Your task to perform on an android device: check data usage Image 0: 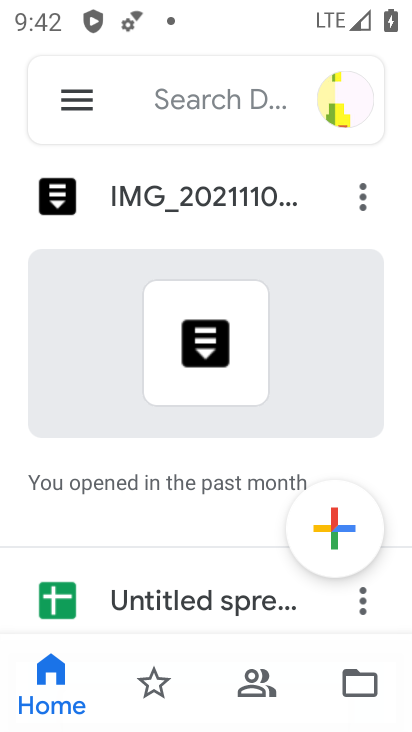
Step 0: press home button
Your task to perform on an android device: check data usage Image 1: 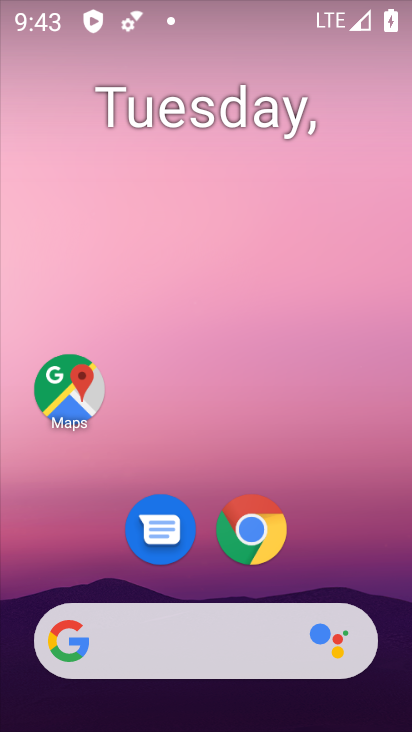
Step 1: drag from (299, 502) to (286, 104)
Your task to perform on an android device: check data usage Image 2: 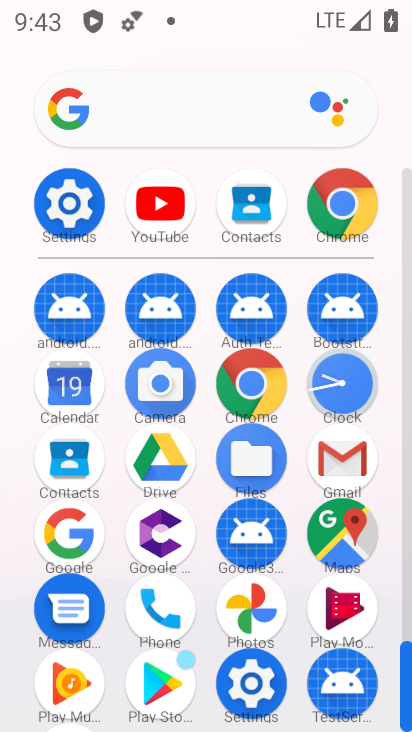
Step 2: click (247, 697)
Your task to perform on an android device: check data usage Image 3: 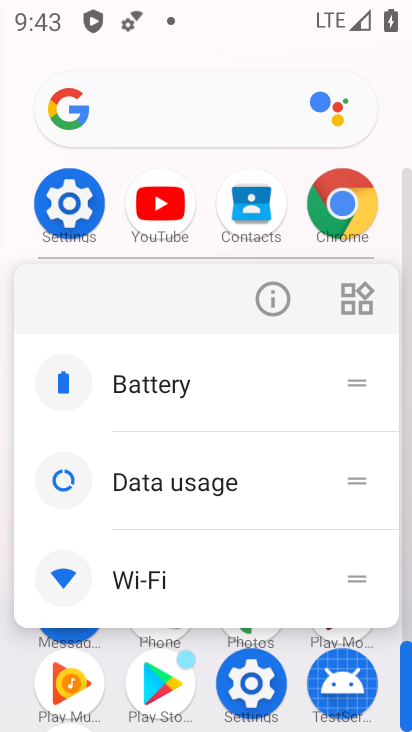
Step 3: click (271, 672)
Your task to perform on an android device: check data usage Image 4: 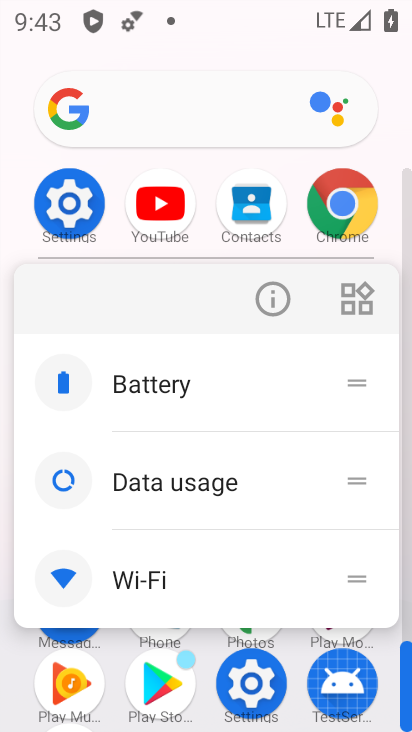
Step 4: click (264, 680)
Your task to perform on an android device: check data usage Image 5: 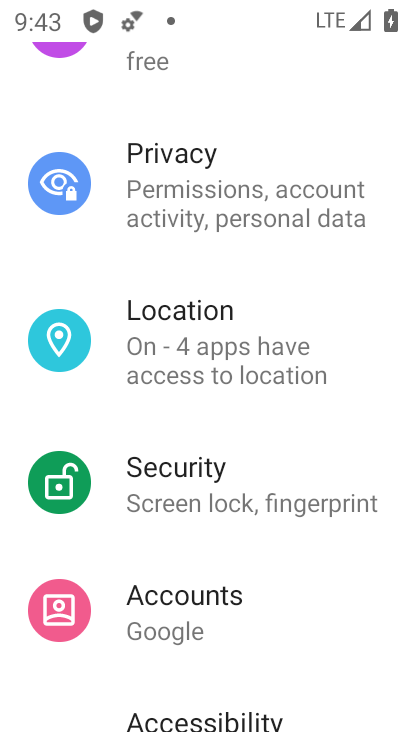
Step 5: drag from (328, 239) to (296, 667)
Your task to perform on an android device: check data usage Image 6: 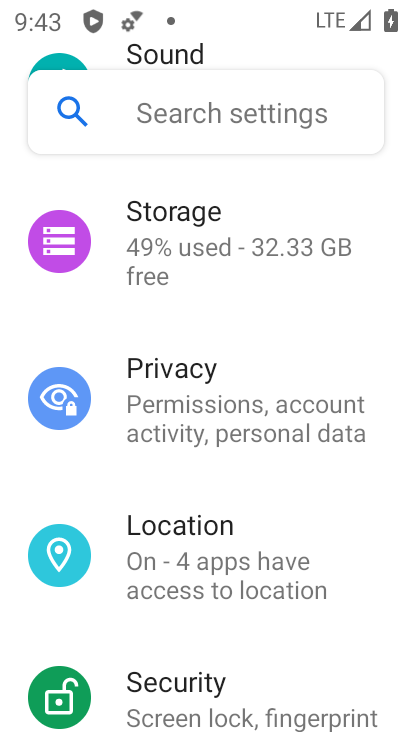
Step 6: drag from (318, 327) to (317, 728)
Your task to perform on an android device: check data usage Image 7: 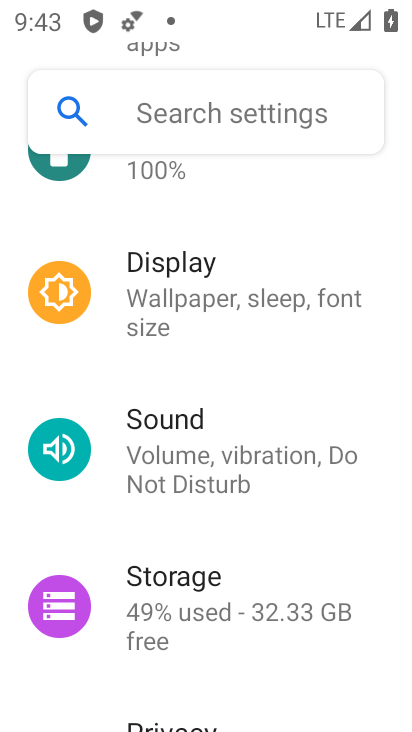
Step 7: drag from (274, 380) to (250, 731)
Your task to perform on an android device: check data usage Image 8: 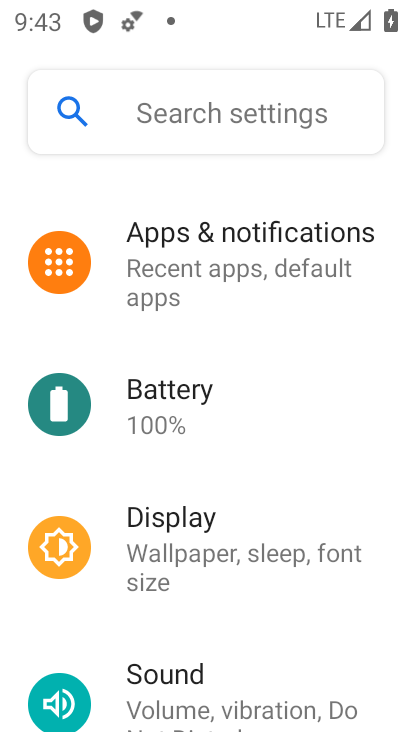
Step 8: drag from (308, 332) to (298, 718)
Your task to perform on an android device: check data usage Image 9: 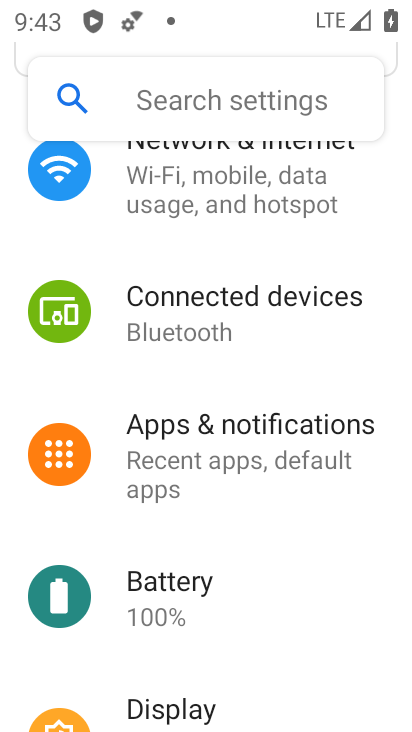
Step 9: drag from (317, 216) to (346, 560)
Your task to perform on an android device: check data usage Image 10: 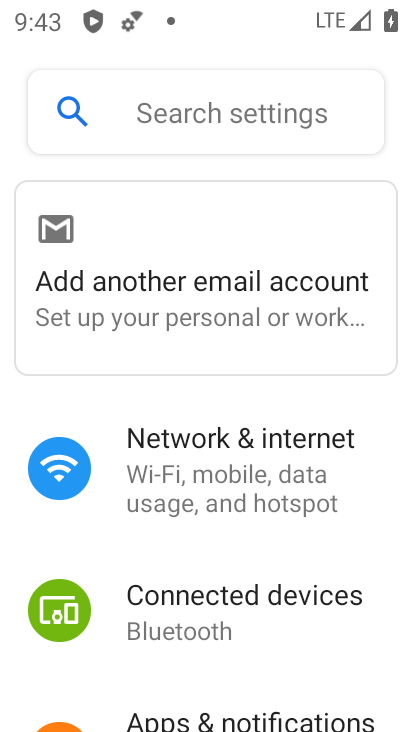
Step 10: click (319, 445)
Your task to perform on an android device: check data usage Image 11: 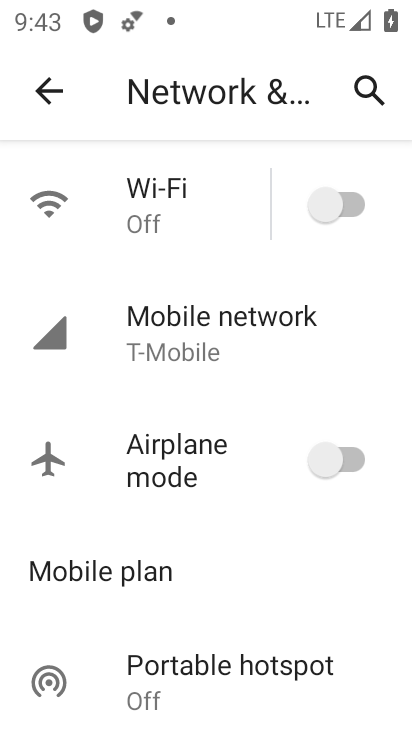
Step 11: click (311, 313)
Your task to perform on an android device: check data usage Image 12: 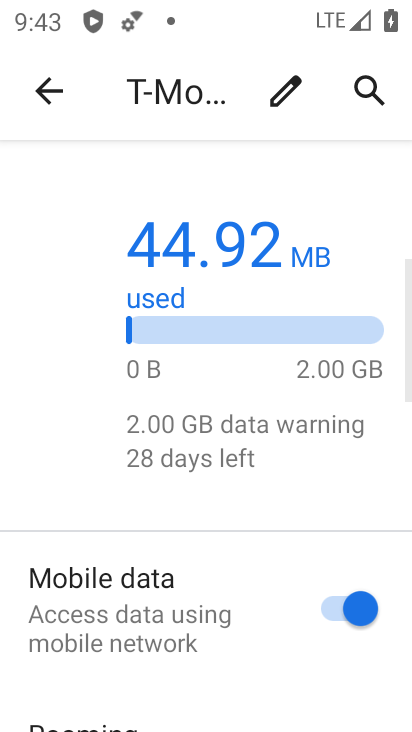
Step 12: task complete